Your task to perform on an android device: refresh tabs in the chrome app Image 0: 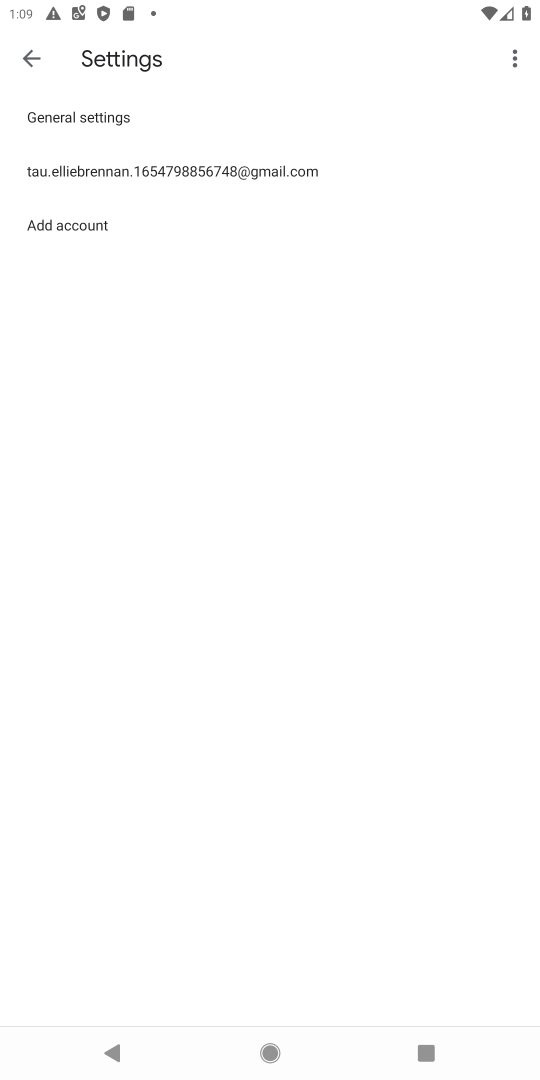
Step 0: press home button
Your task to perform on an android device: refresh tabs in the chrome app Image 1: 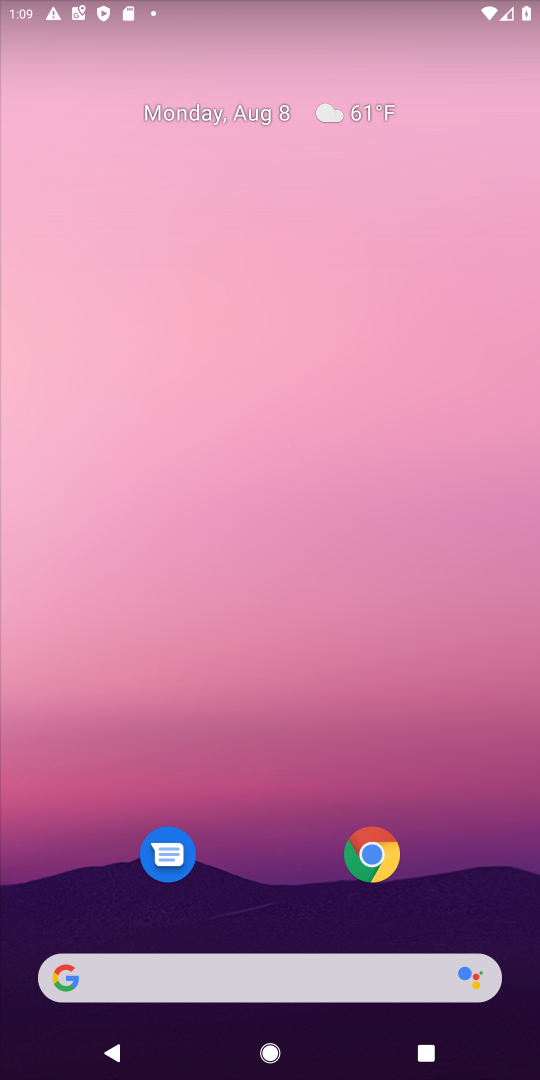
Step 1: click (379, 847)
Your task to perform on an android device: refresh tabs in the chrome app Image 2: 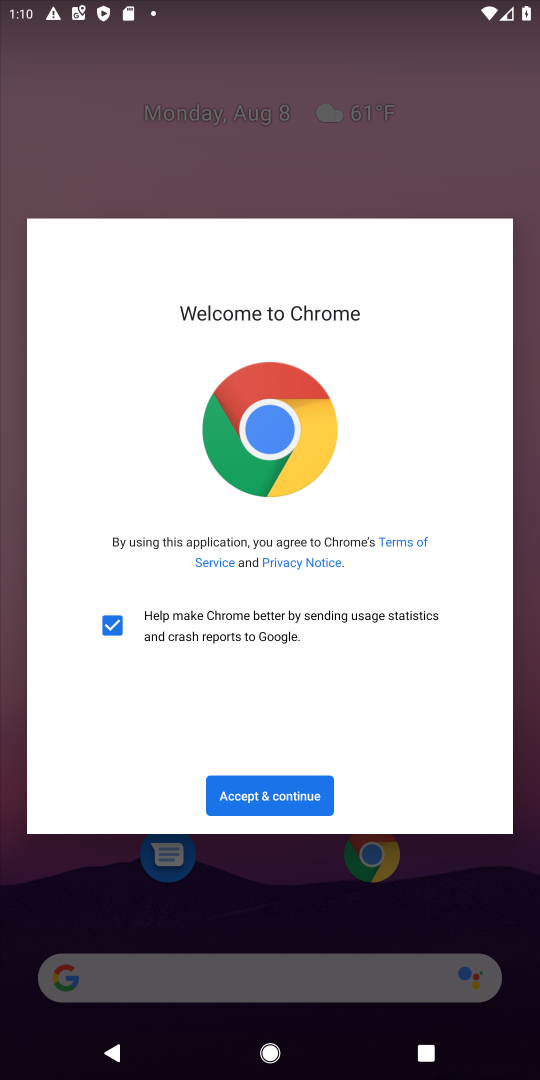
Step 2: click (268, 785)
Your task to perform on an android device: refresh tabs in the chrome app Image 3: 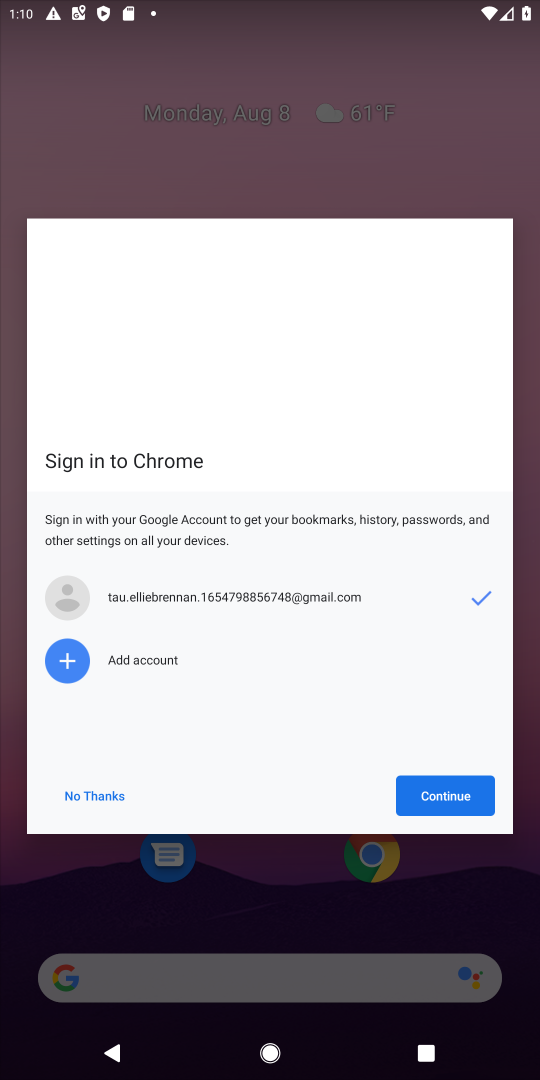
Step 3: click (438, 785)
Your task to perform on an android device: refresh tabs in the chrome app Image 4: 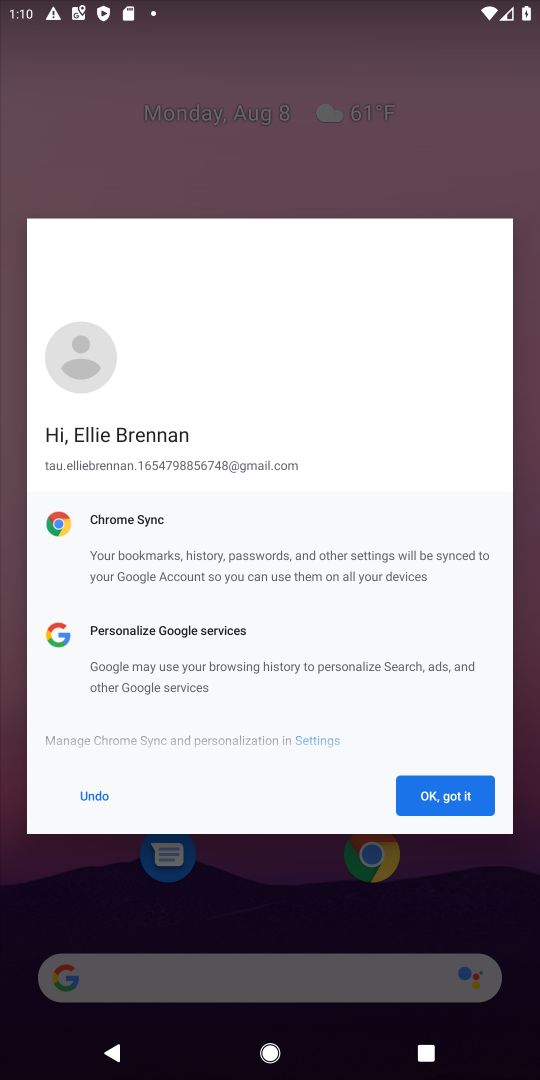
Step 4: click (475, 797)
Your task to perform on an android device: refresh tabs in the chrome app Image 5: 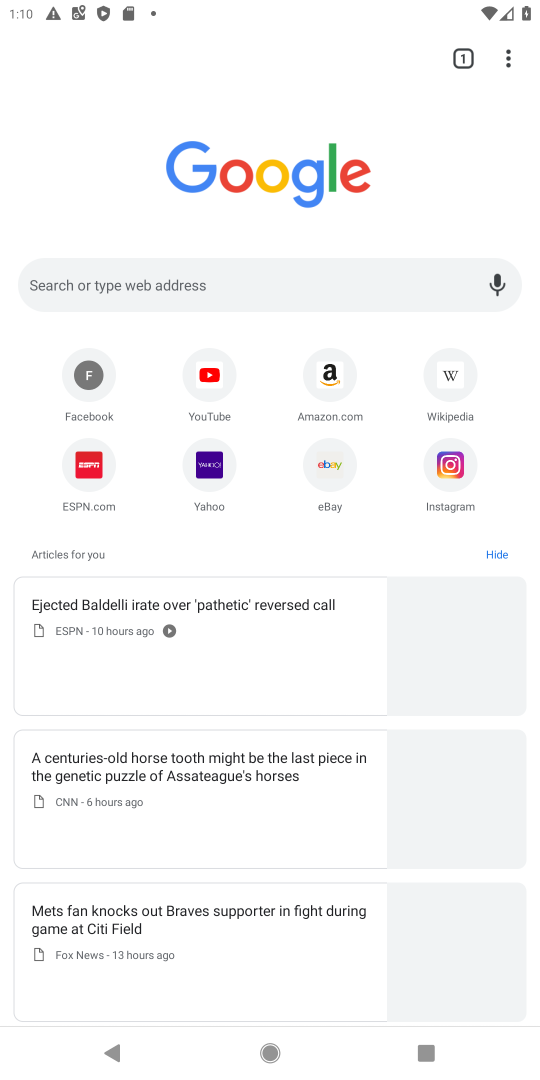
Step 5: click (512, 53)
Your task to perform on an android device: refresh tabs in the chrome app Image 6: 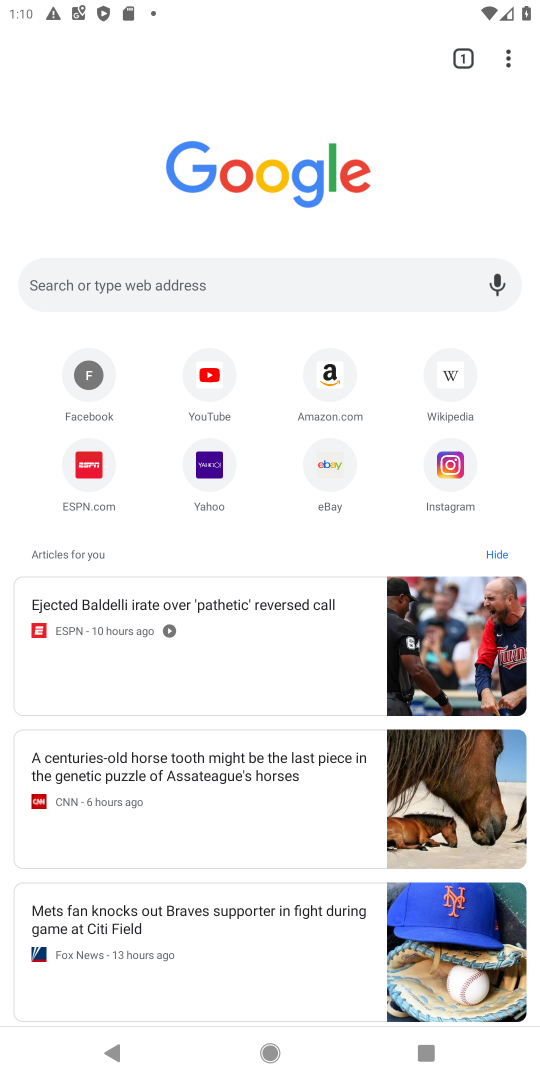
Step 6: click (514, 54)
Your task to perform on an android device: refresh tabs in the chrome app Image 7: 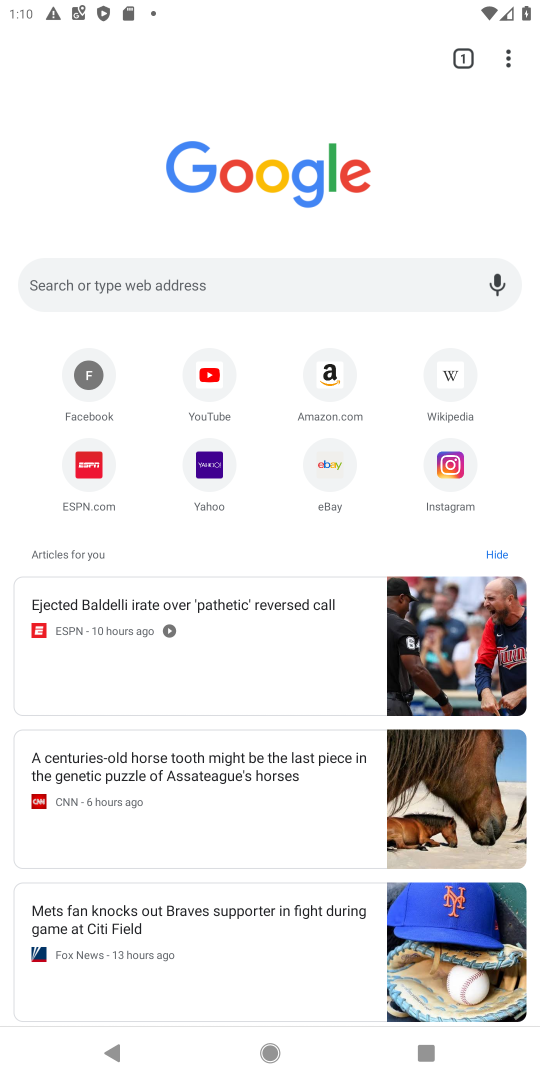
Step 7: click (514, 53)
Your task to perform on an android device: refresh tabs in the chrome app Image 8: 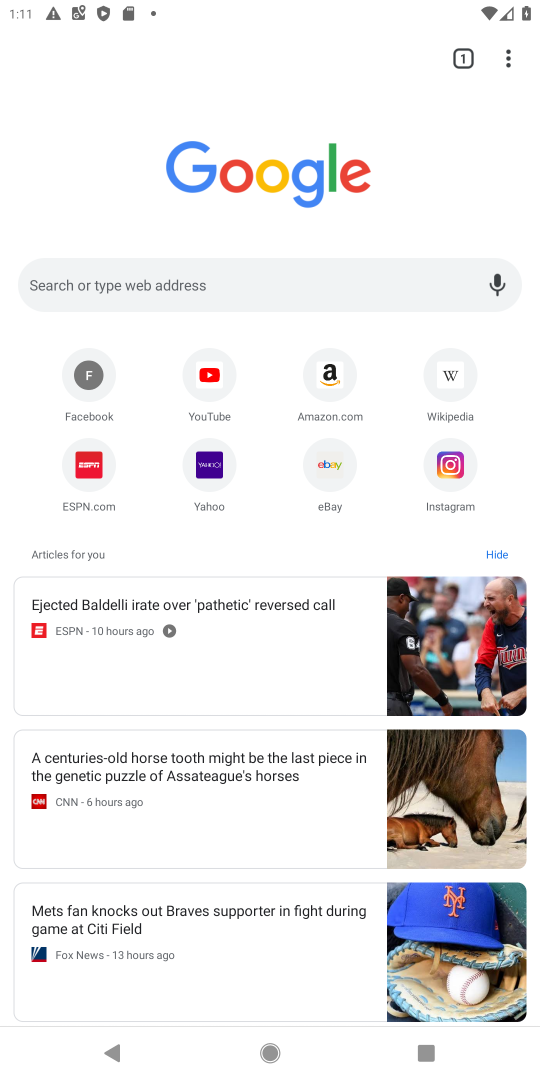
Step 8: click (510, 60)
Your task to perform on an android device: refresh tabs in the chrome app Image 9: 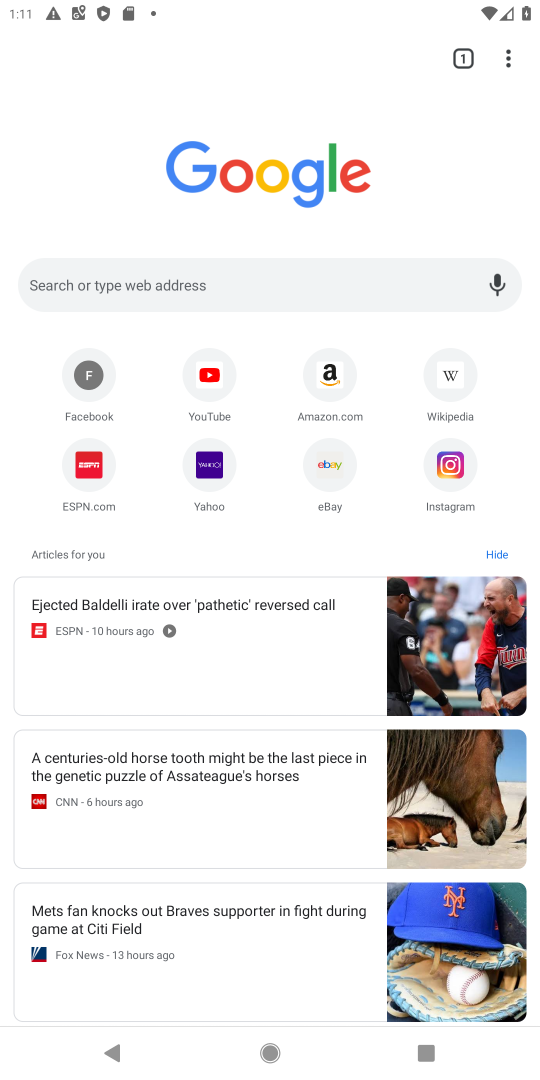
Step 9: task complete